Your task to perform on an android device: change the clock style Image 0: 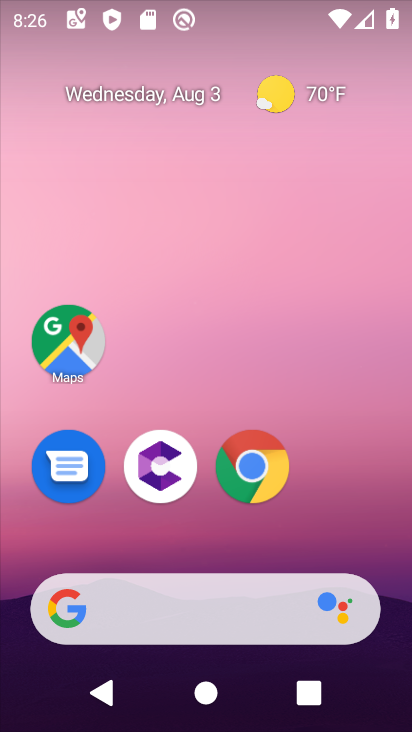
Step 0: click (402, 492)
Your task to perform on an android device: change the clock style Image 1: 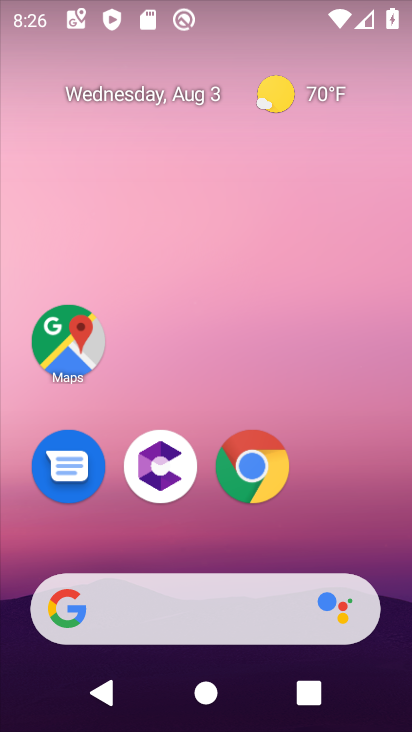
Step 1: drag from (384, 500) to (386, 166)
Your task to perform on an android device: change the clock style Image 2: 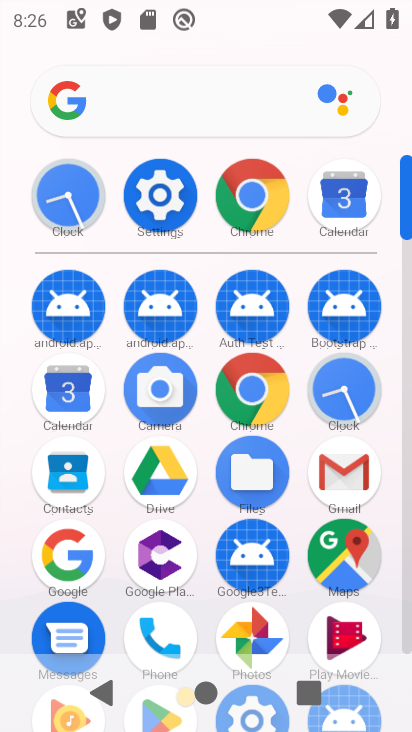
Step 2: click (355, 376)
Your task to perform on an android device: change the clock style Image 3: 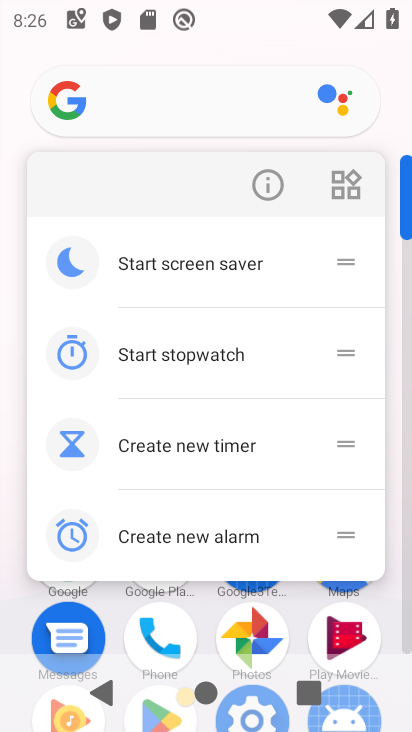
Step 3: click (276, 53)
Your task to perform on an android device: change the clock style Image 4: 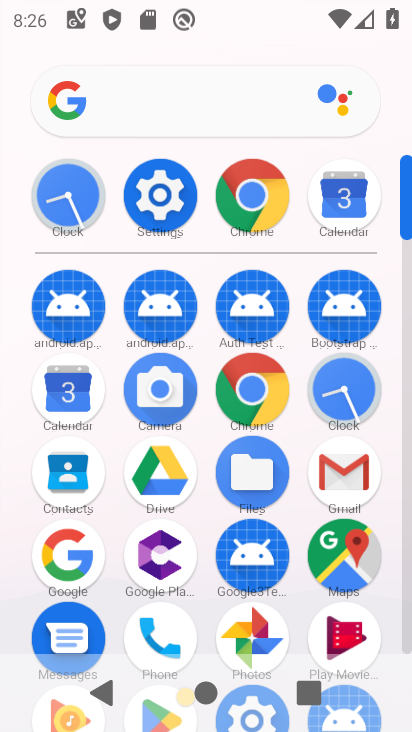
Step 4: click (342, 389)
Your task to perform on an android device: change the clock style Image 5: 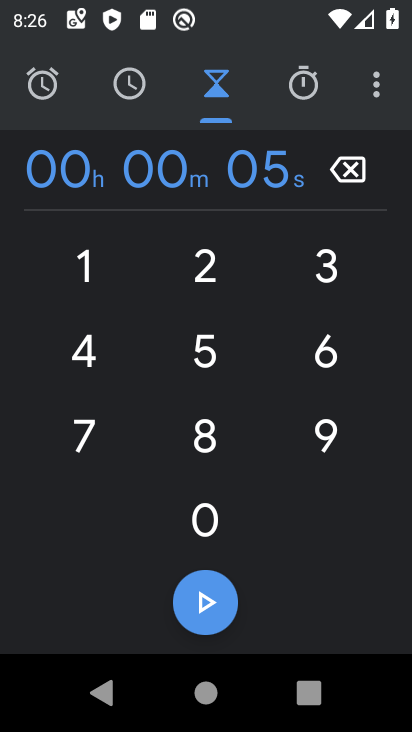
Step 5: click (372, 92)
Your task to perform on an android device: change the clock style Image 6: 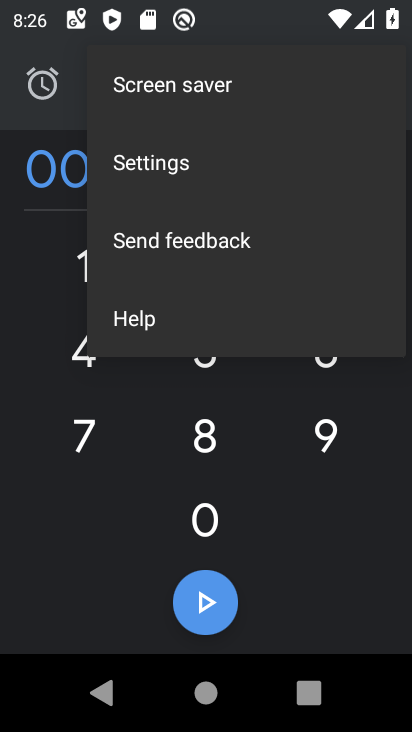
Step 6: click (196, 177)
Your task to perform on an android device: change the clock style Image 7: 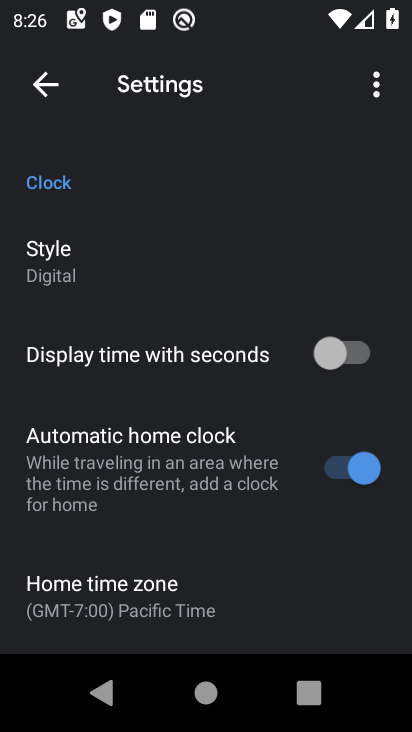
Step 7: click (80, 259)
Your task to perform on an android device: change the clock style Image 8: 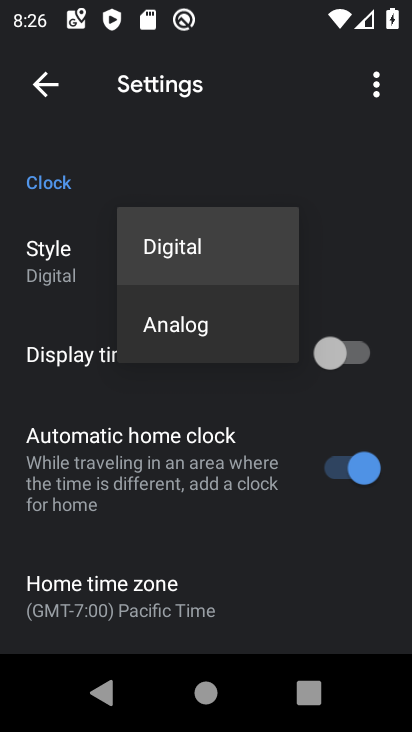
Step 8: click (197, 325)
Your task to perform on an android device: change the clock style Image 9: 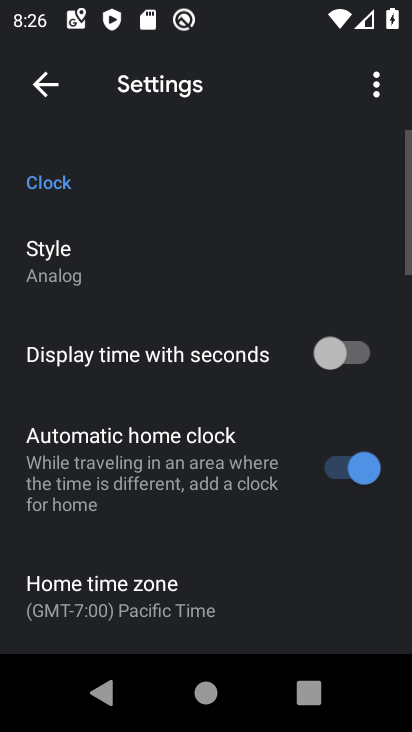
Step 9: task complete